Your task to perform on an android device: Add asus zenbook to the cart on newegg, then select checkout. Image 0: 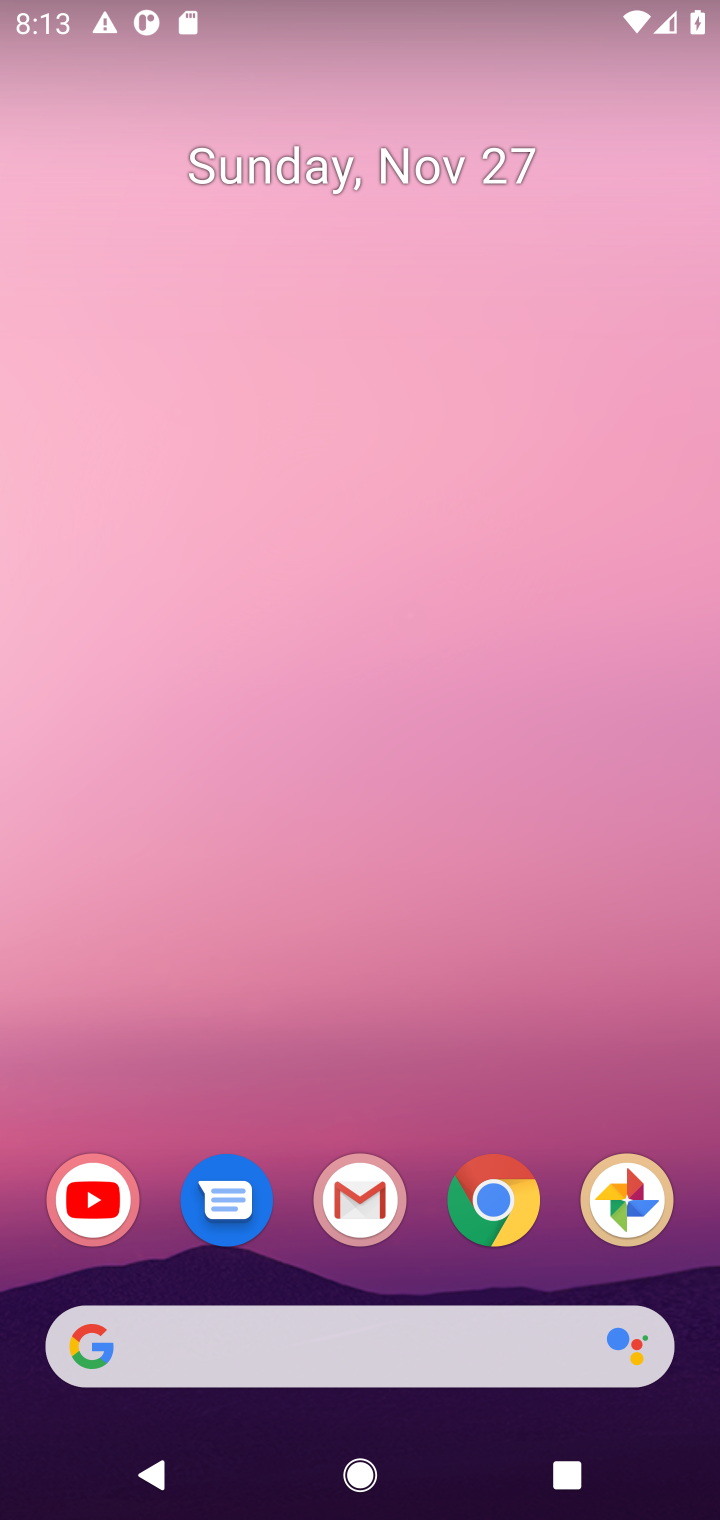
Step 0: click (499, 1213)
Your task to perform on an android device: Add asus zenbook to the cart on newegg, then select checkout. Image 1: 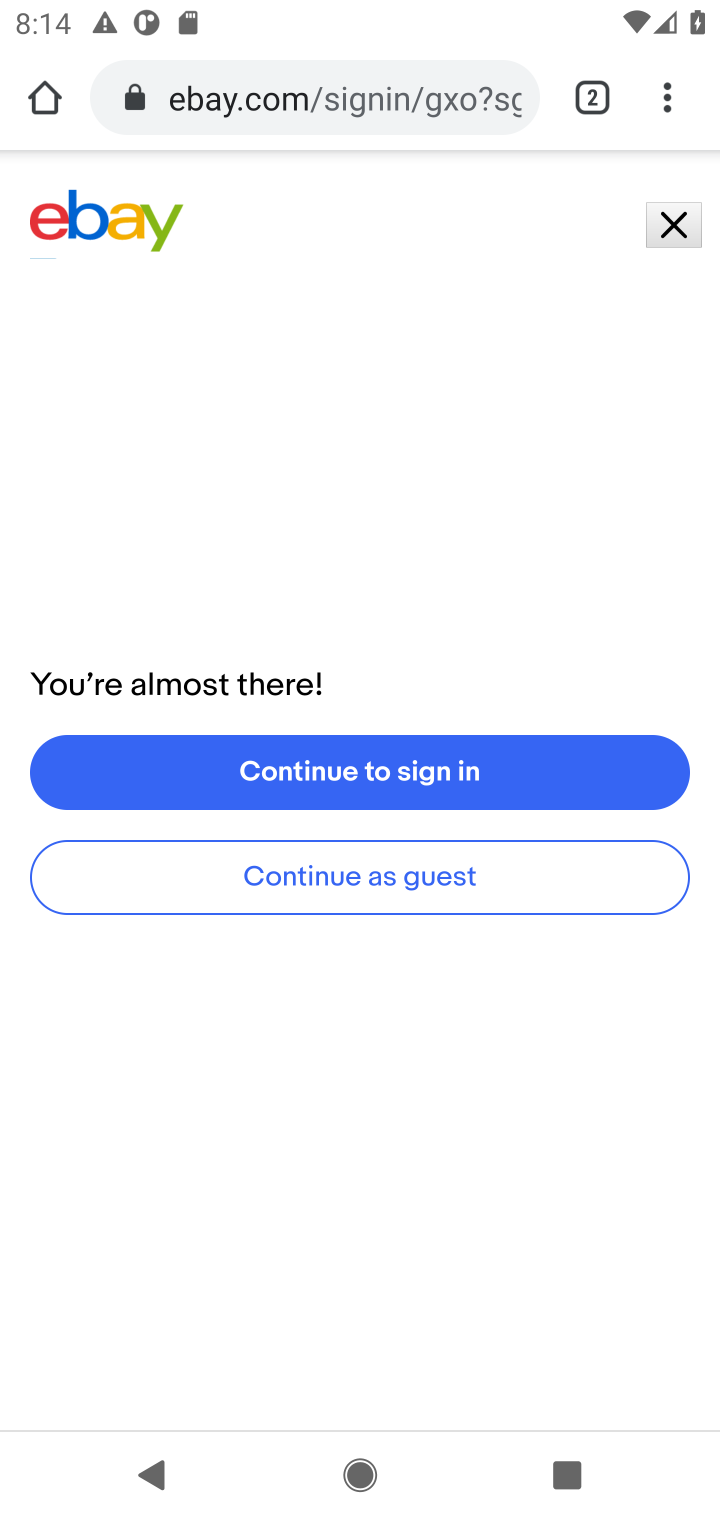
Step 1: click (306, 102)
Your task to perform on an android device: Add asus zenbook to the cart on newegg, then select checkout. Image 2: 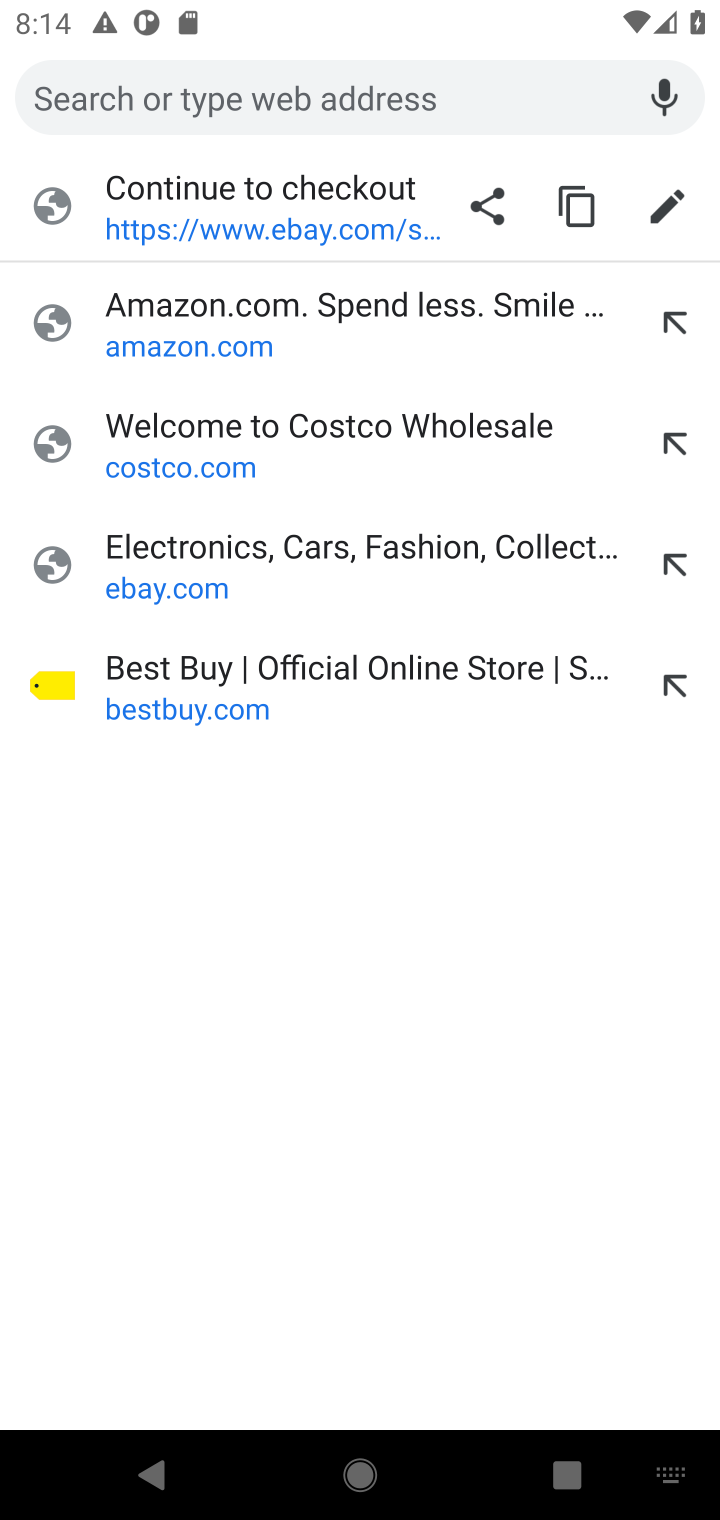
Step 2: type "newegg.com"
Your task to perform on an android device: Add asus zenbook to the cart on newegg, then select checkout. Image 3: 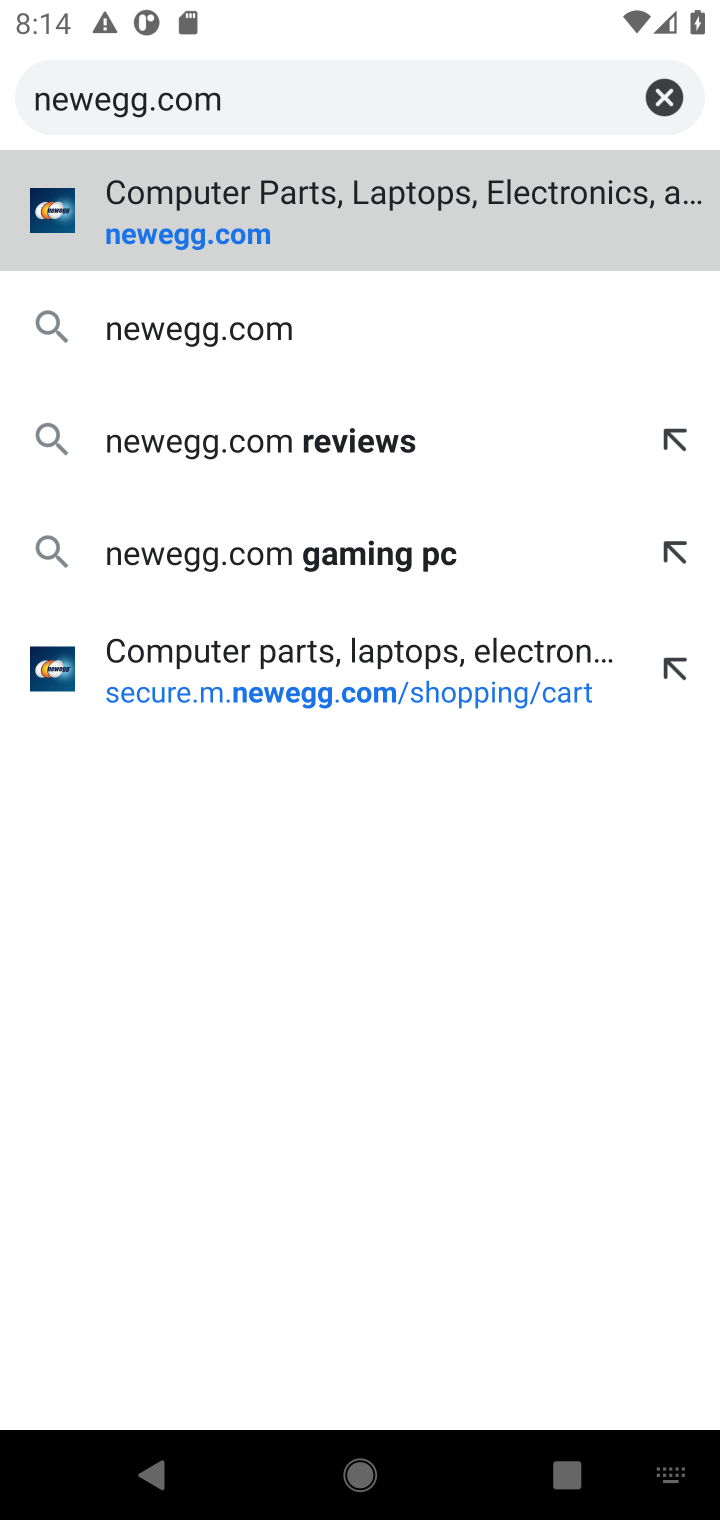
Step 3: click (194, 239)
Your task to perform on an android device: Add asus zenbook to the cart on newegg, then select checkout. Image 4: 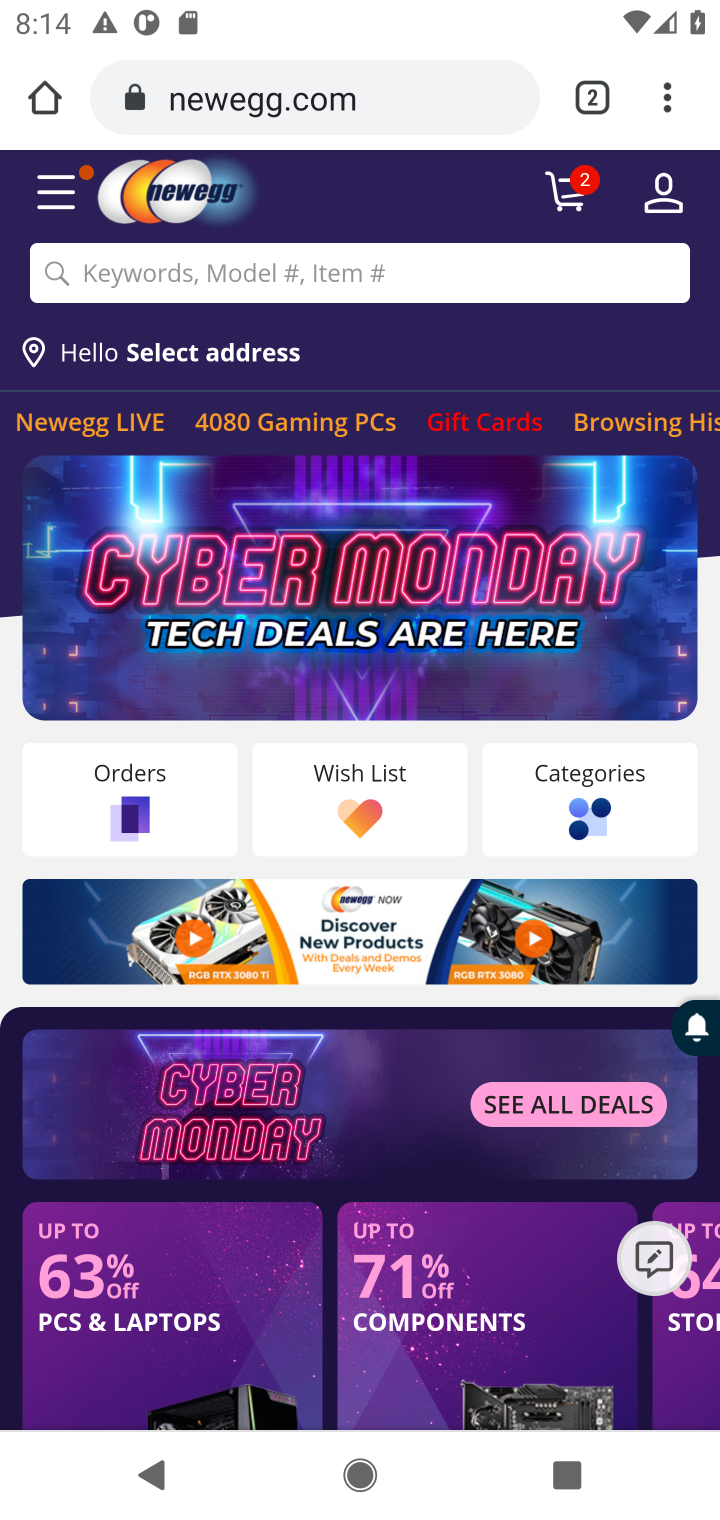
Step 4: click (273, 266)
Your task to perform on an android device: Add asus zenbook to the cart on newegg, then select checkout. Image 5: 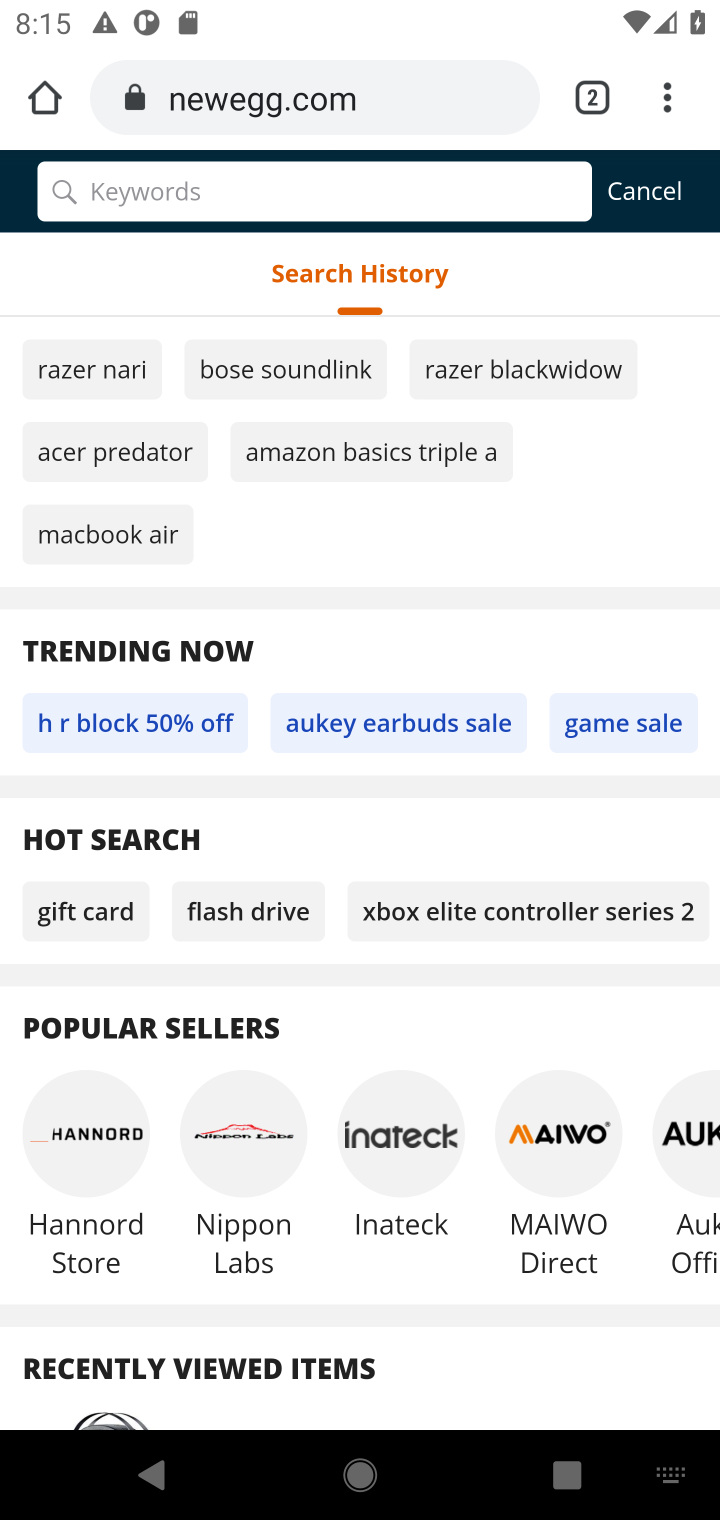
Step 5: type "asus zenbook "
Your task to perform on an android device: Add asus zenbook to the cart on newegg, then select checkout. Image 6: 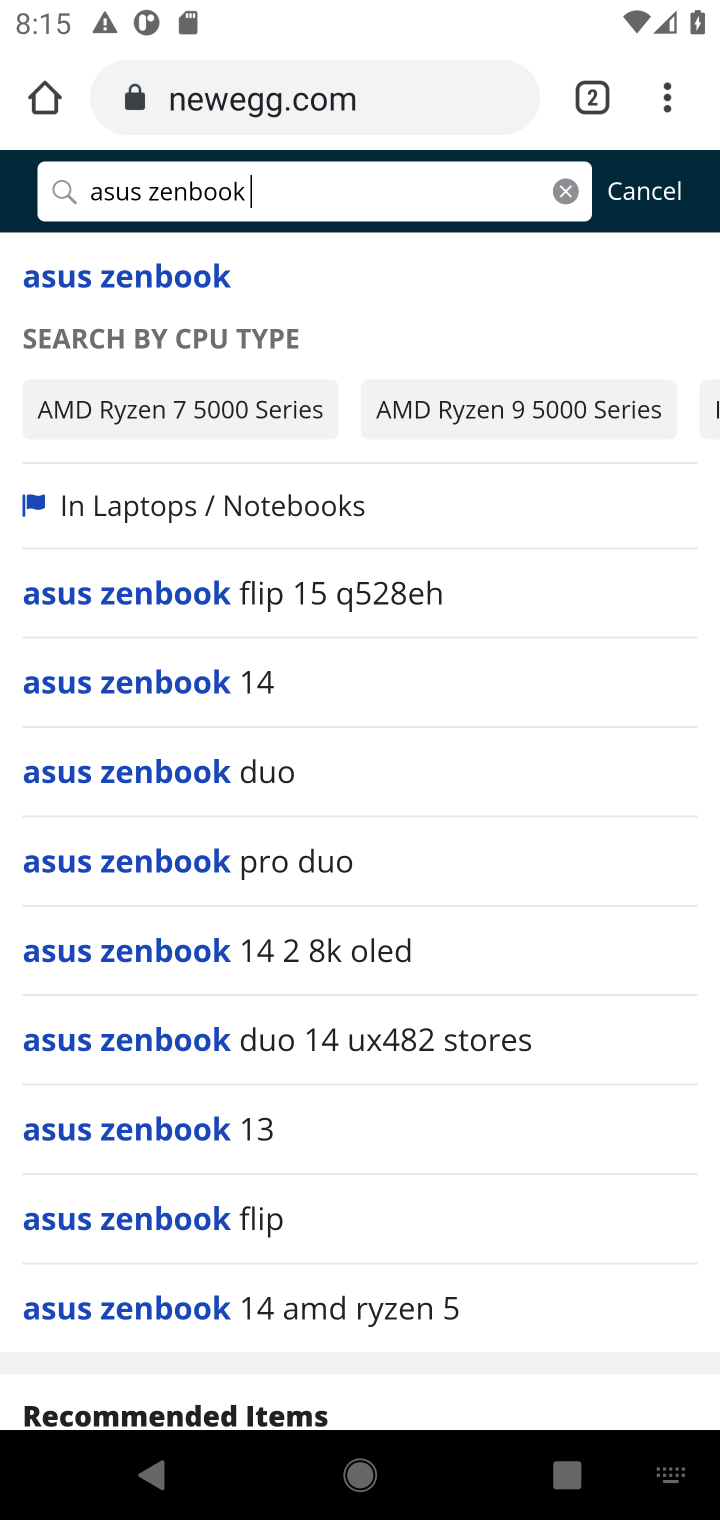
Step 6: click (50, 283)
Your task to perform on an android device: Add asus zenbook to the cart on newegg, then select checkout. Image 7: 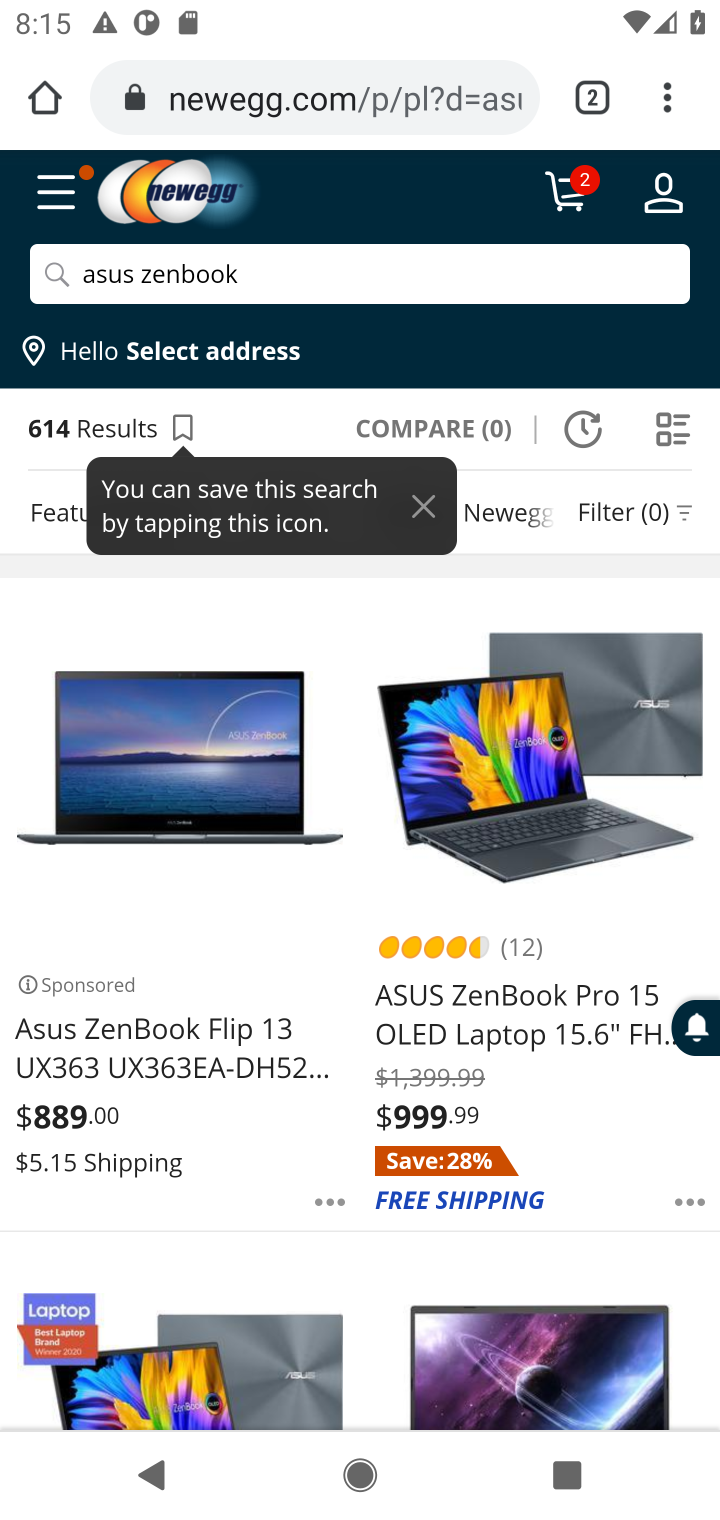
Step 7: click (153, 893)
Your task to perform on an android device: Add asus zenbook to the cart on newegg, then select checkout. Image 8: 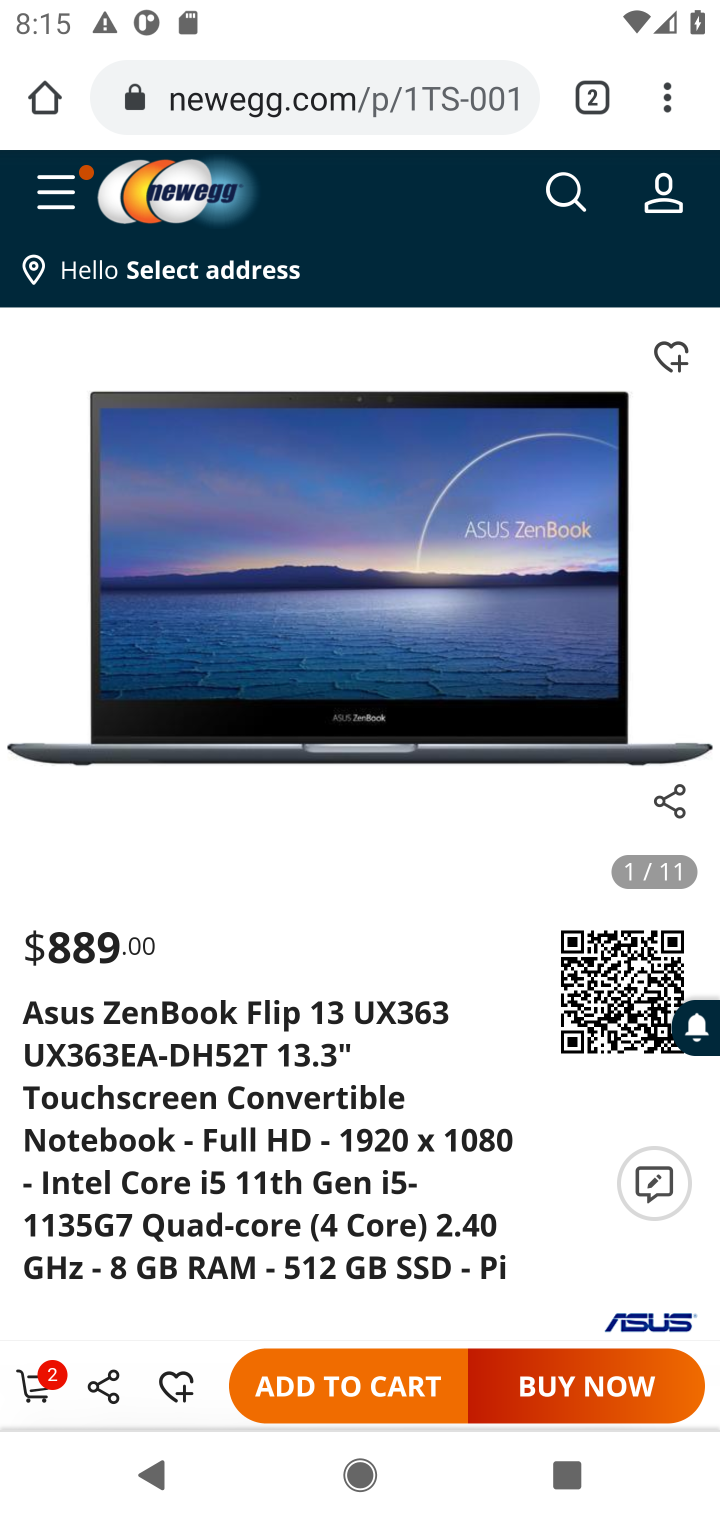
Step 8: click (308, 1402)
Your task to perform on an android device: Add asus zenbook to the cart on newegg, then select checkout. Image 9: 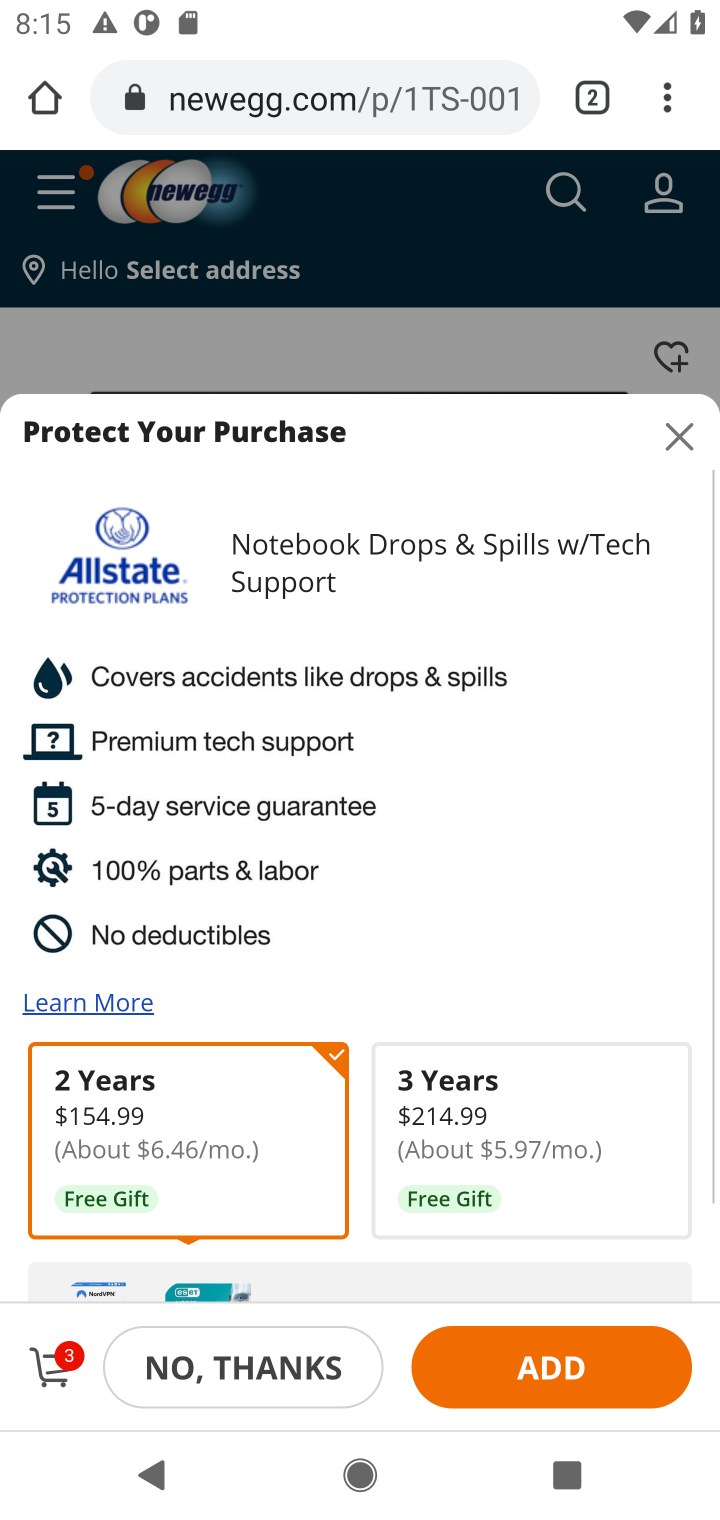
Step 9: click (55, 1366)
Your task to perform on an android device: Add asus zenbook to the cart on newegg, then select checkout. Image 10: 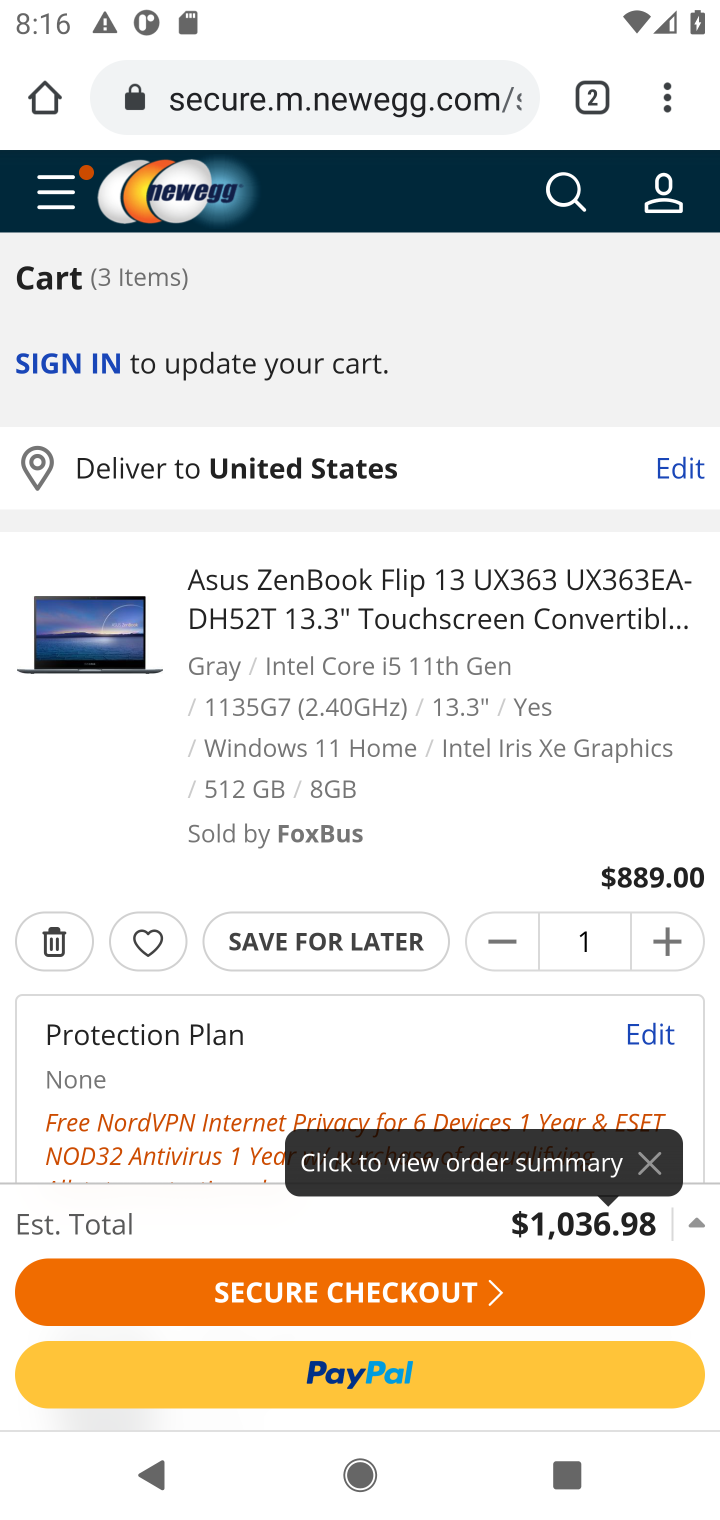
Step 10: click (294, 1290)
Your task to perform on an android device: Add asus zenbook to the cart on newegg, then select checkout. Image 11: 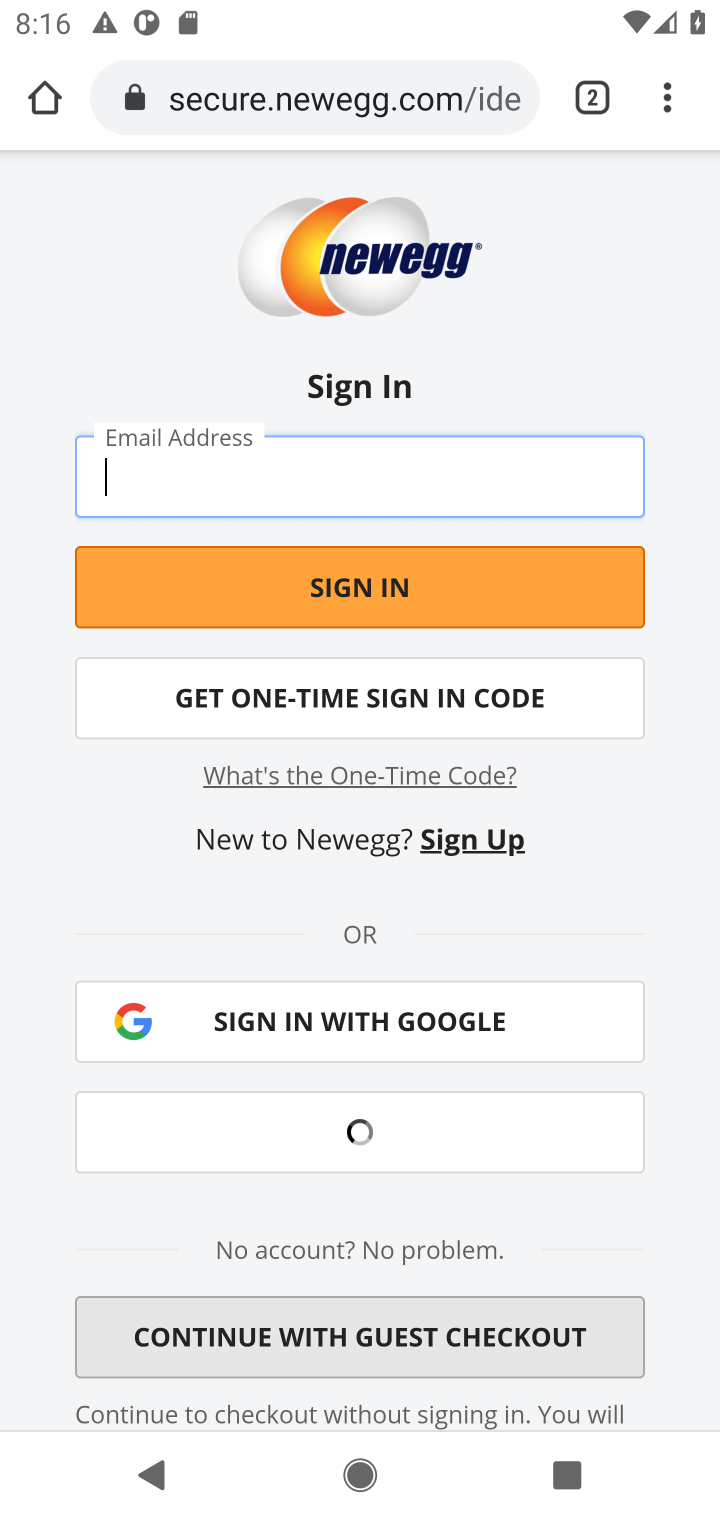
Step 11: task complete